Your task to perform on an android device: See recent photos Image 0: 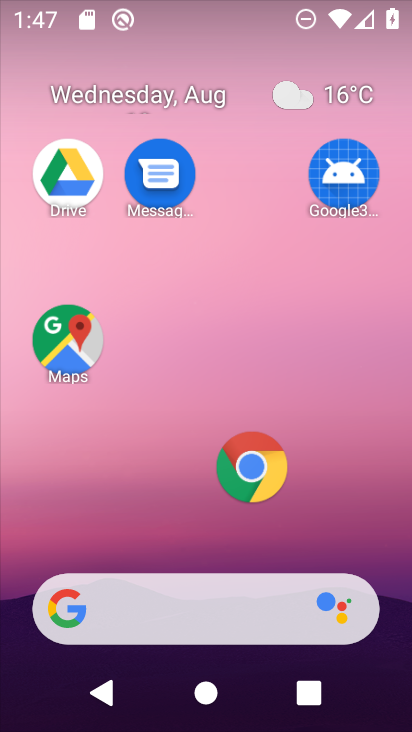
Step 0: drag from (168, 533) to (185, 72)
Your task to perform on an android device: See recent photos Image 1: 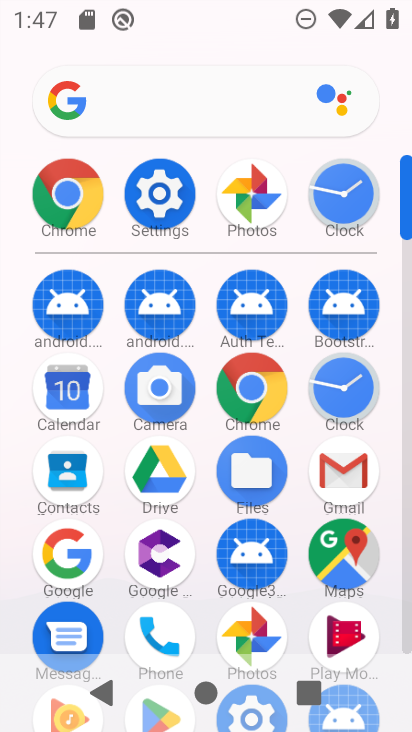
Step 1: click (275, 191)
Your task to perform on an android device: See recent photos Image 2: 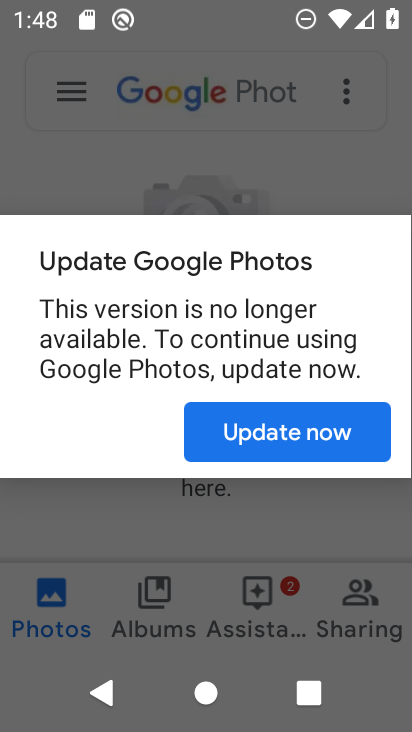
Step 2: click (253, 439)
Your task to perform on an android device: See recent photos Image 3: 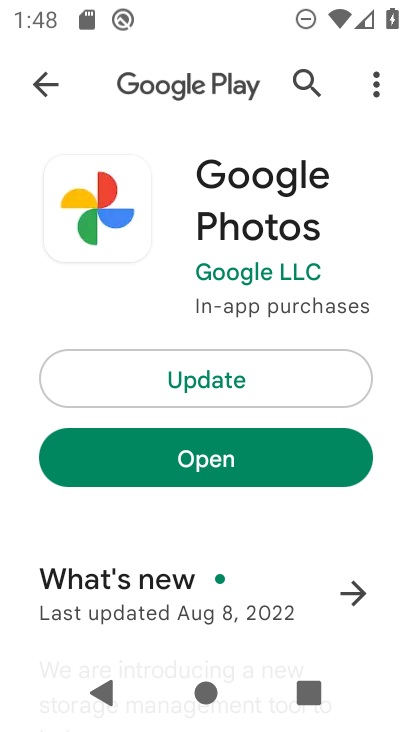
Step 3: click (254, 444)
Your task to perform on an android device: See recent photos Image 4: 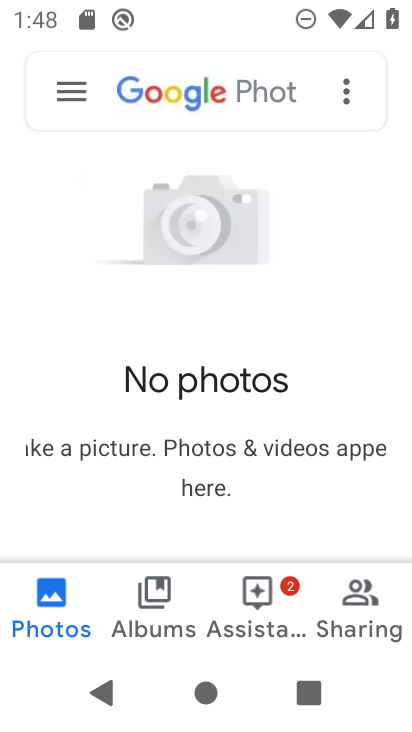
Step 4: task complete